Your task to perform on an android device: Clear the cart on amazon. Search for "apple airpods" on amazon, select the first entry, add it to the cart, then select checkout. Image 0: 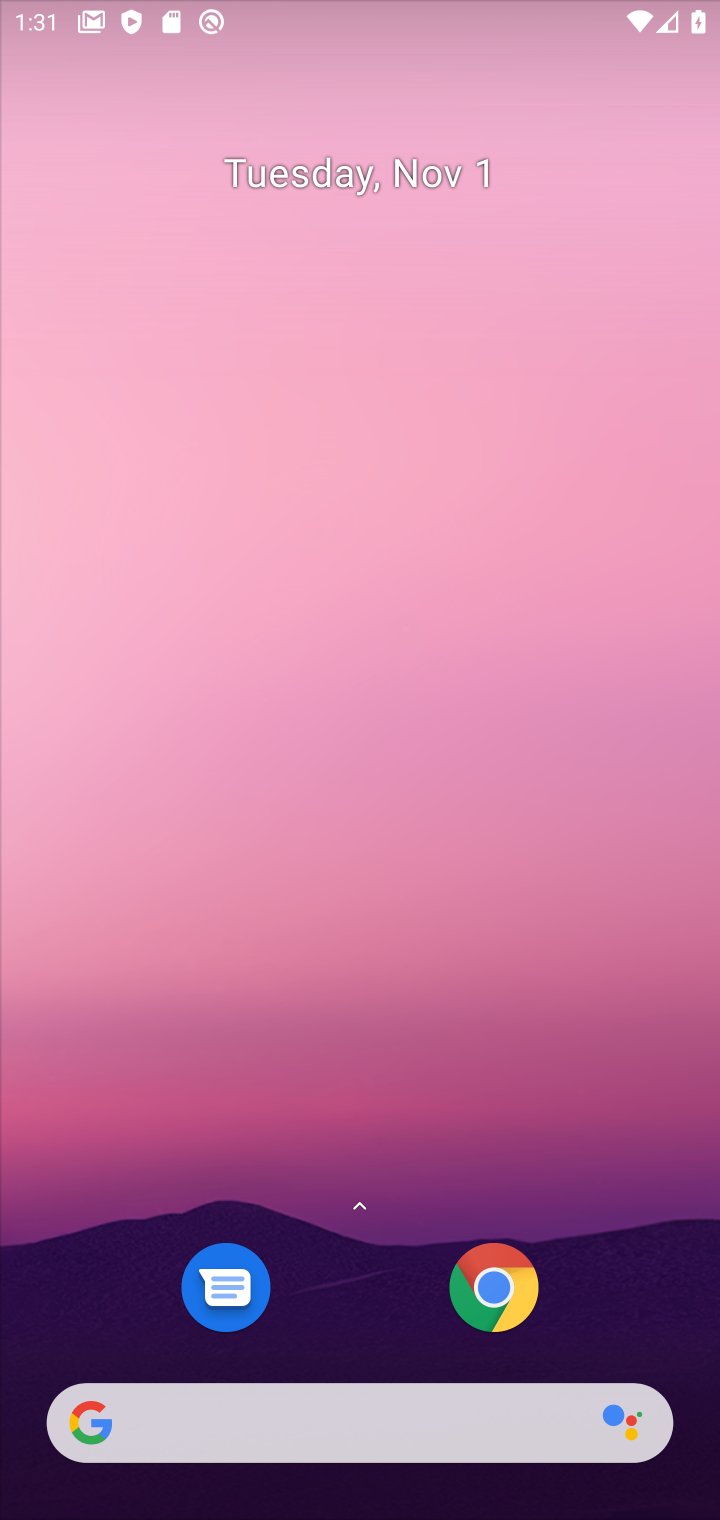
Step 0: press home button
Your task to perform on an android device: Clear the cart on amazon. Search for "apple airpods" on amazon, select the first entry, add it to the cart, then select checkout. Image 1: 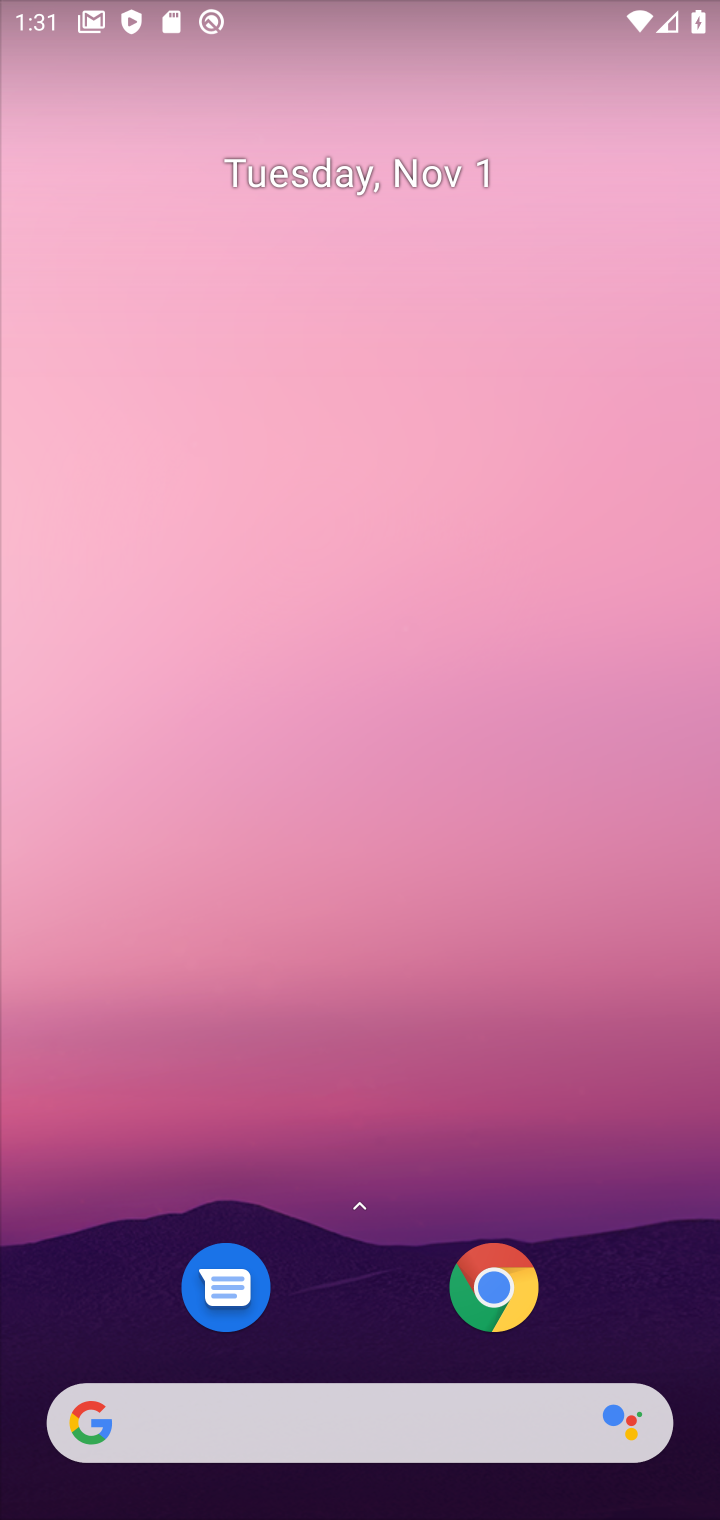
Step 1: drag from (337, 1319) to (401, 272)
Your task to perform on an android device: Clear the cart on amazon. Search for "apple airpods" on amazon, select the first entry, add it to the cart, then select checkout. Image 2: 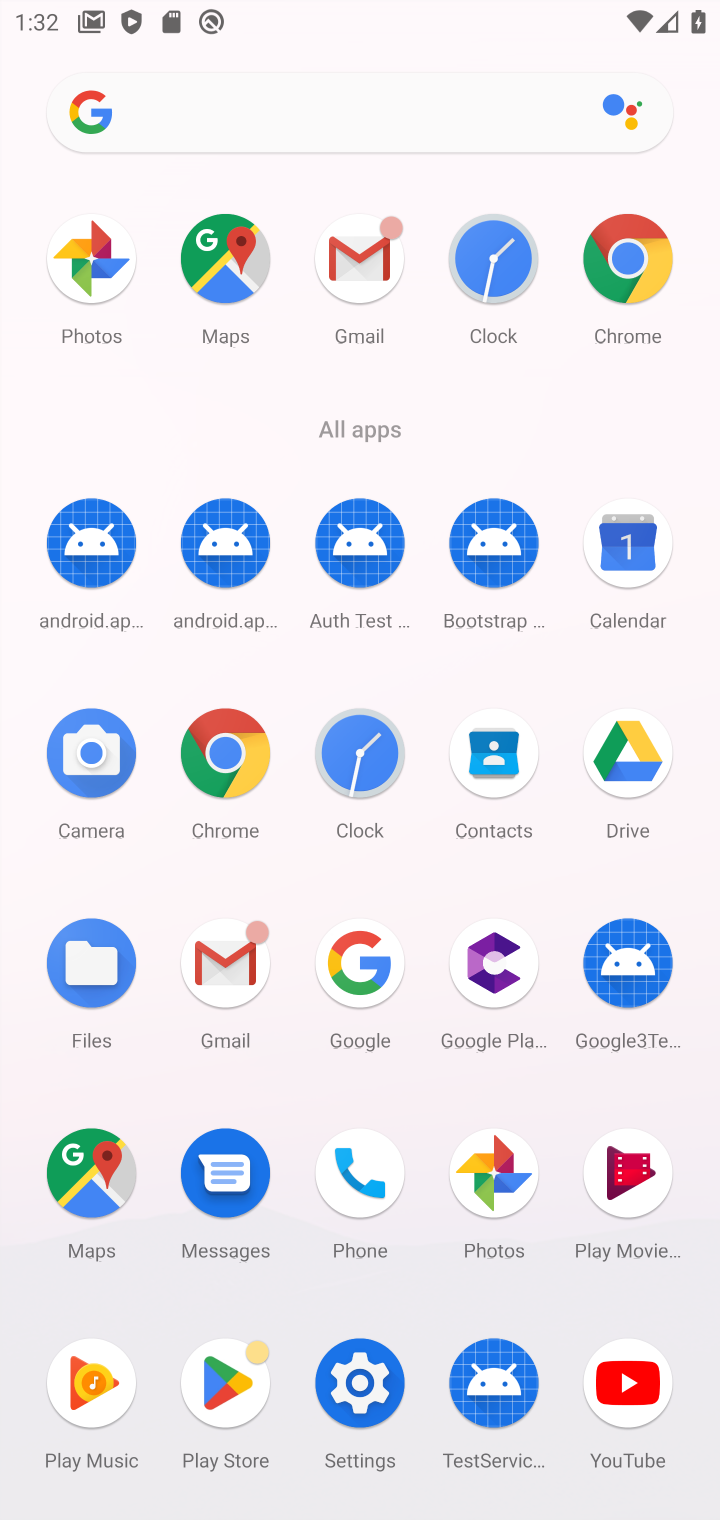
Step 2: click (229, 749)
Your task to perform on an android device: Clear the cart on amazon. Search for "apple airpods" on amazon, select the first entry, add it to the cart, then select checkout. Image 3: 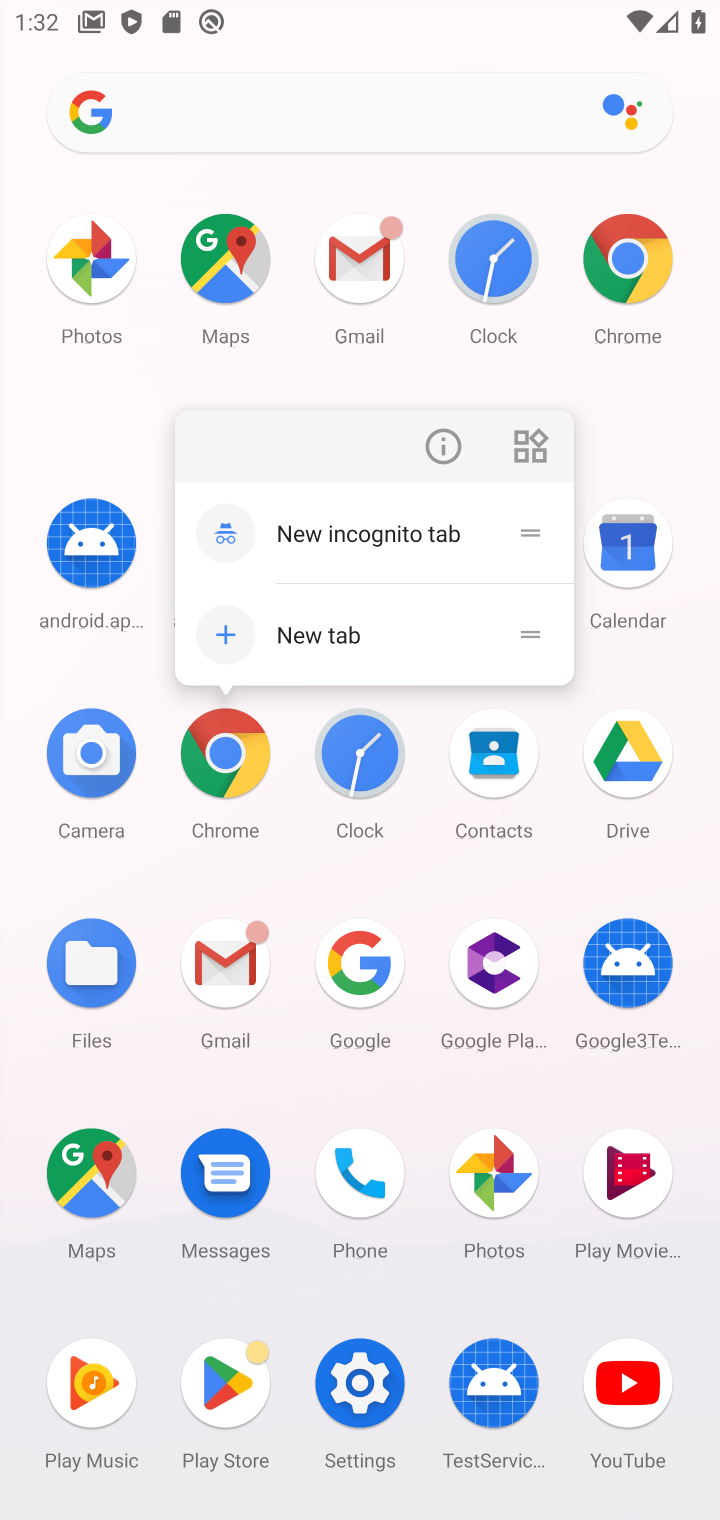
Step 3: click (229, 756)
Your task to perform on an android device: Clear the cart on amazon. Search for "apple airpods" on amazon, select the first entry, add it to the cart, then select checkout. Image 4: 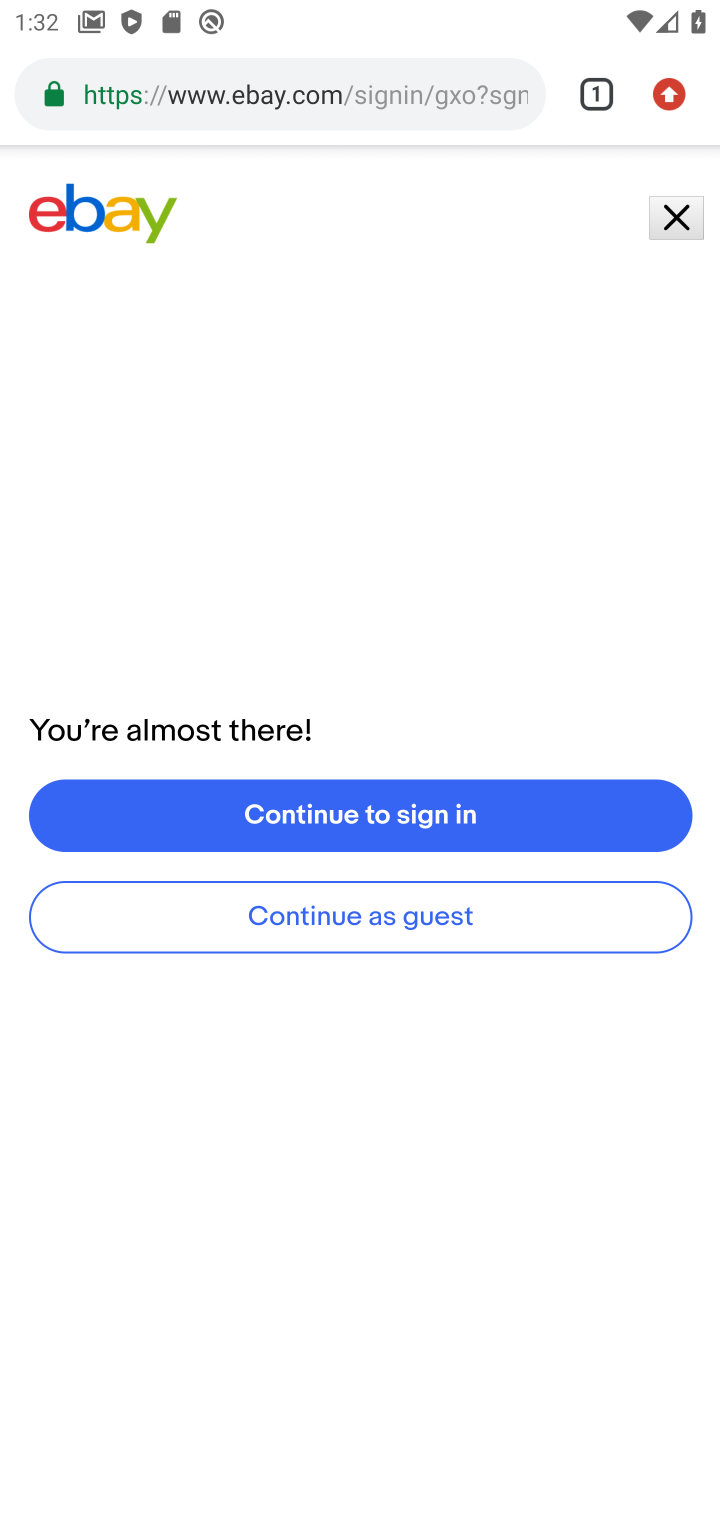
Step 4: click (362, 85)
Your task to perform on an android device: Clear the cart on amazon. Search for "apple airpods" on amazon, select the first entry, add it to the cart, then select checkout. Image 5: 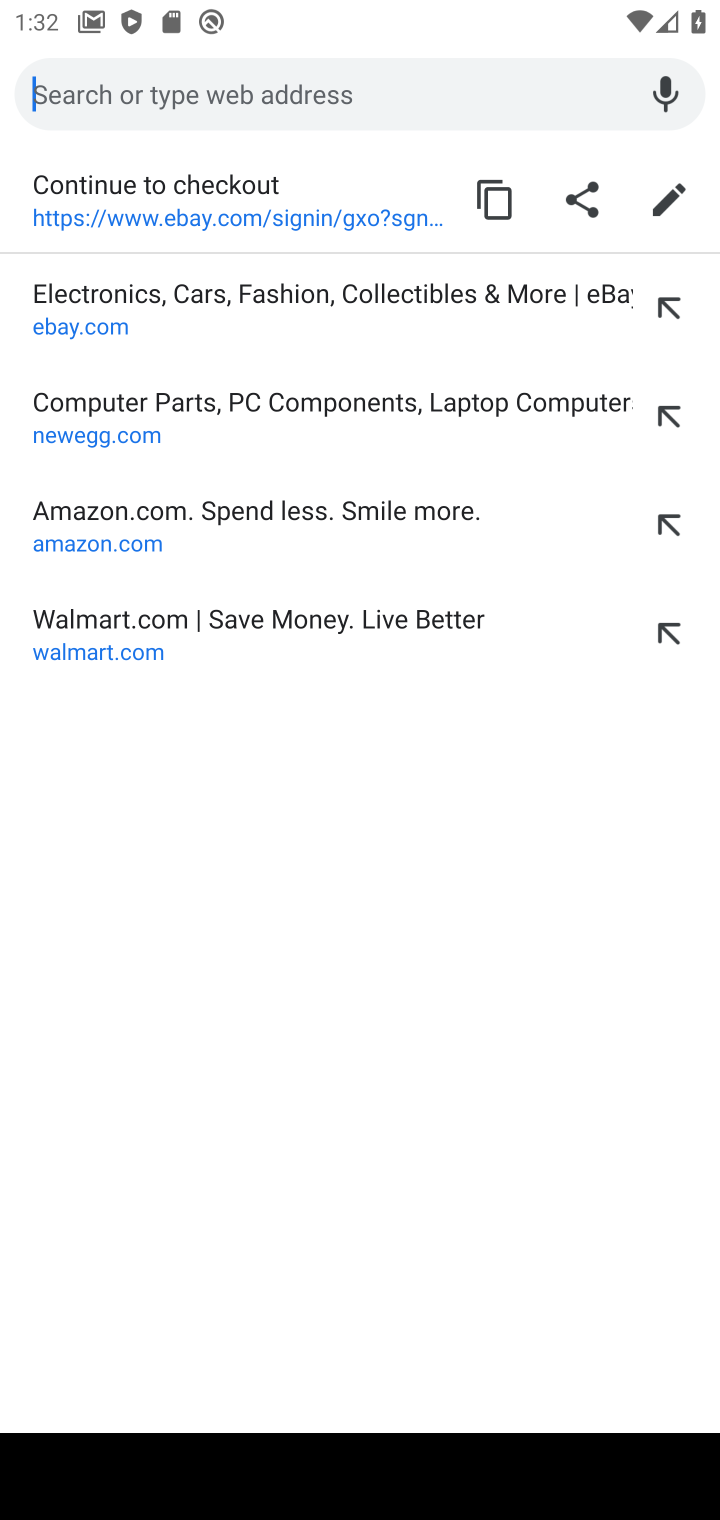
Step 5: type "amazon.com"
Your task to perform on an android device: Clear the cart on amazon. Search for "apple airpods" on amazon, select the first entry, add it to the cart, then select checkout. Image 6: 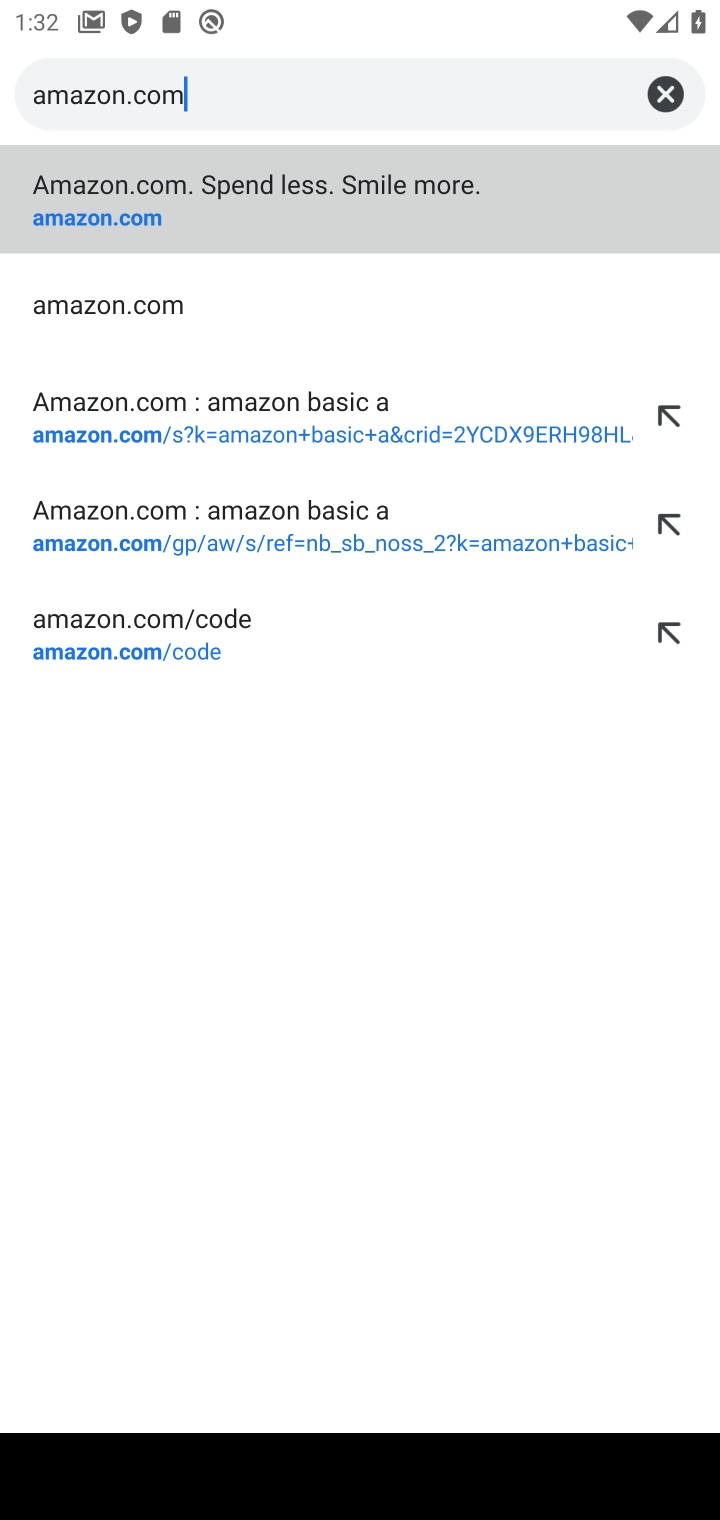
Step 6: press enter
Your task to perform on an android device: Clear the cart on amazon. Search for "apple airpods" on amazon, select the first entry, add it to the cart, then select checkout. Image 7: 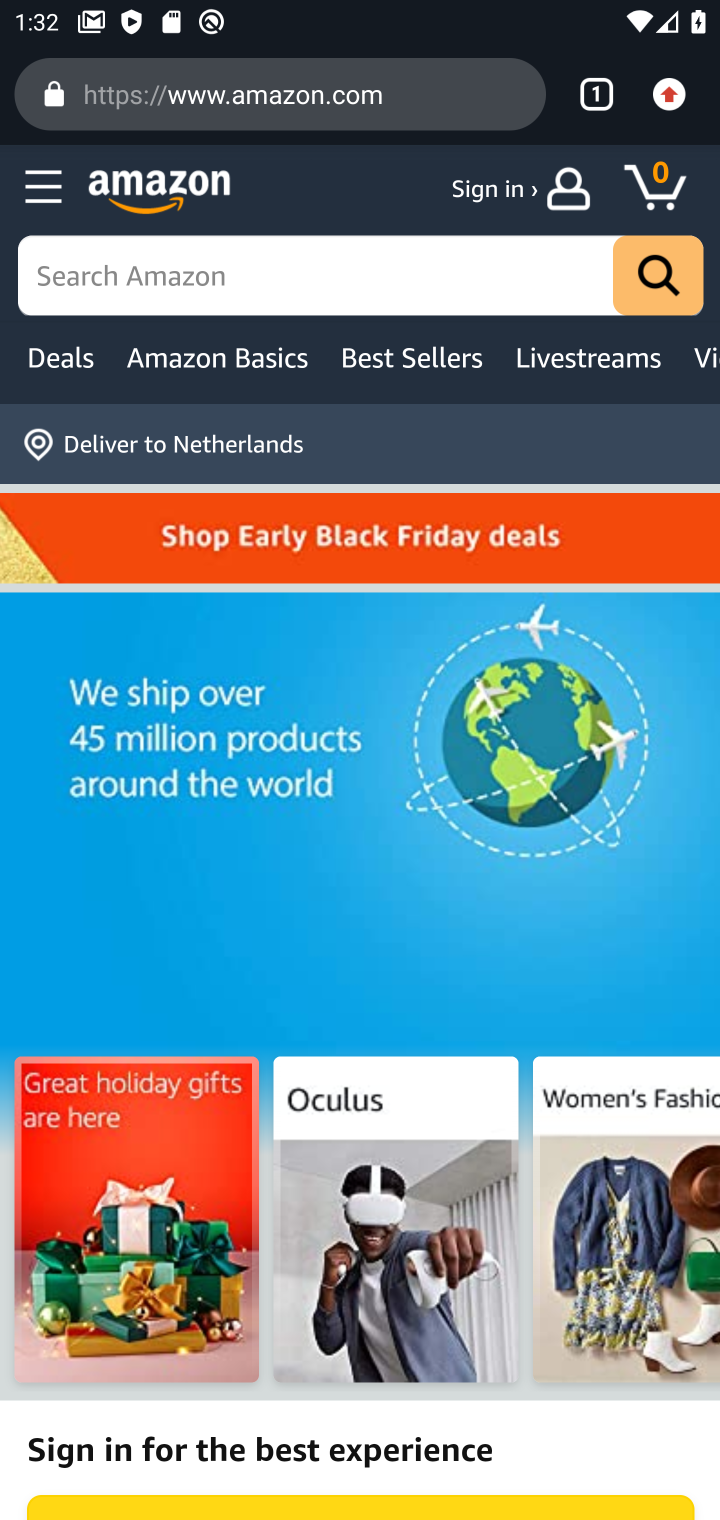
Step 7: click (650, 174)
Your task to perform on an android device: Clear the cart on amazon. Search for "apple airpods" on amazon, select the first entry, add it to the cart, then select checkout. Image 8: 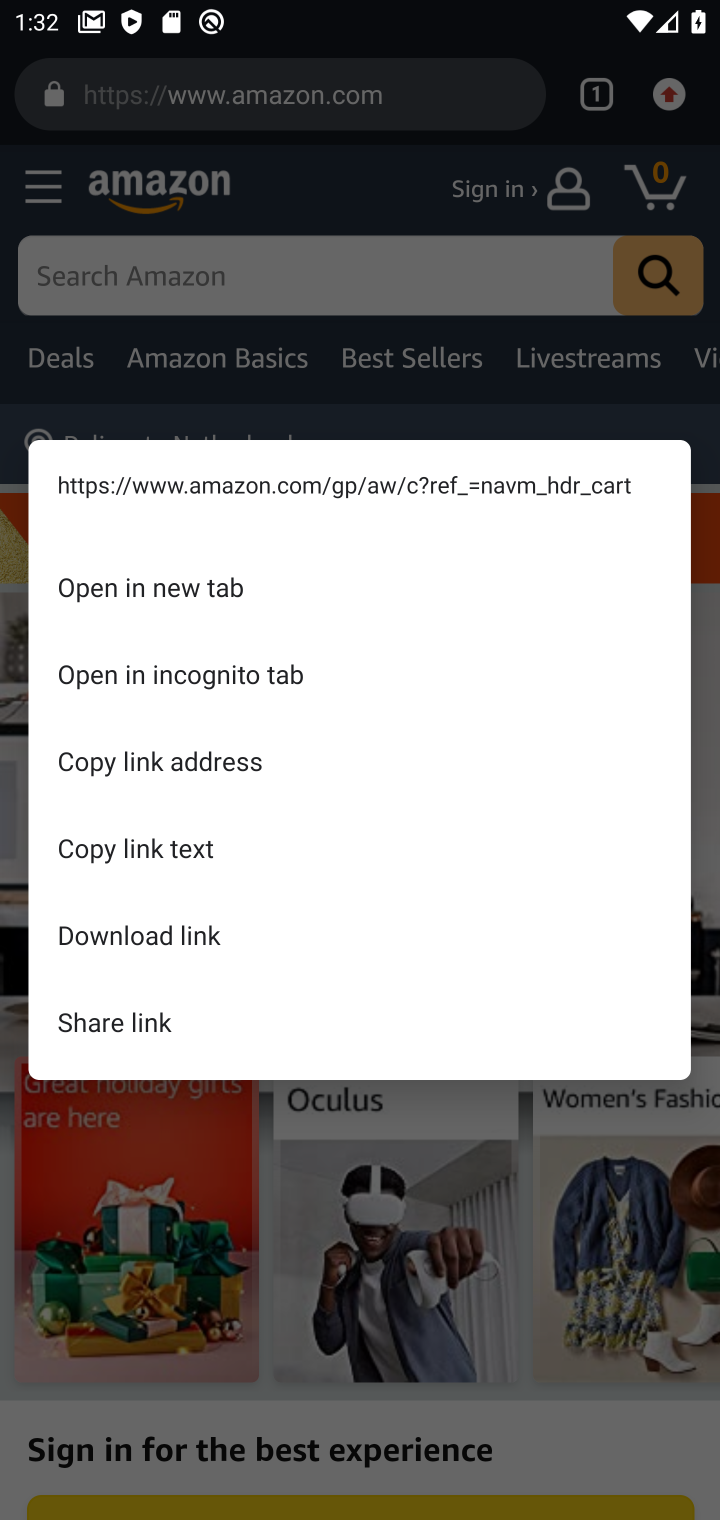
Step 8: click (683, 201)
Your task to perform on an android device: Clear the cart on amazon. Search for "apple airpods" on amazon, select the first entry, add it to the cart, then select checkout. Image 9: 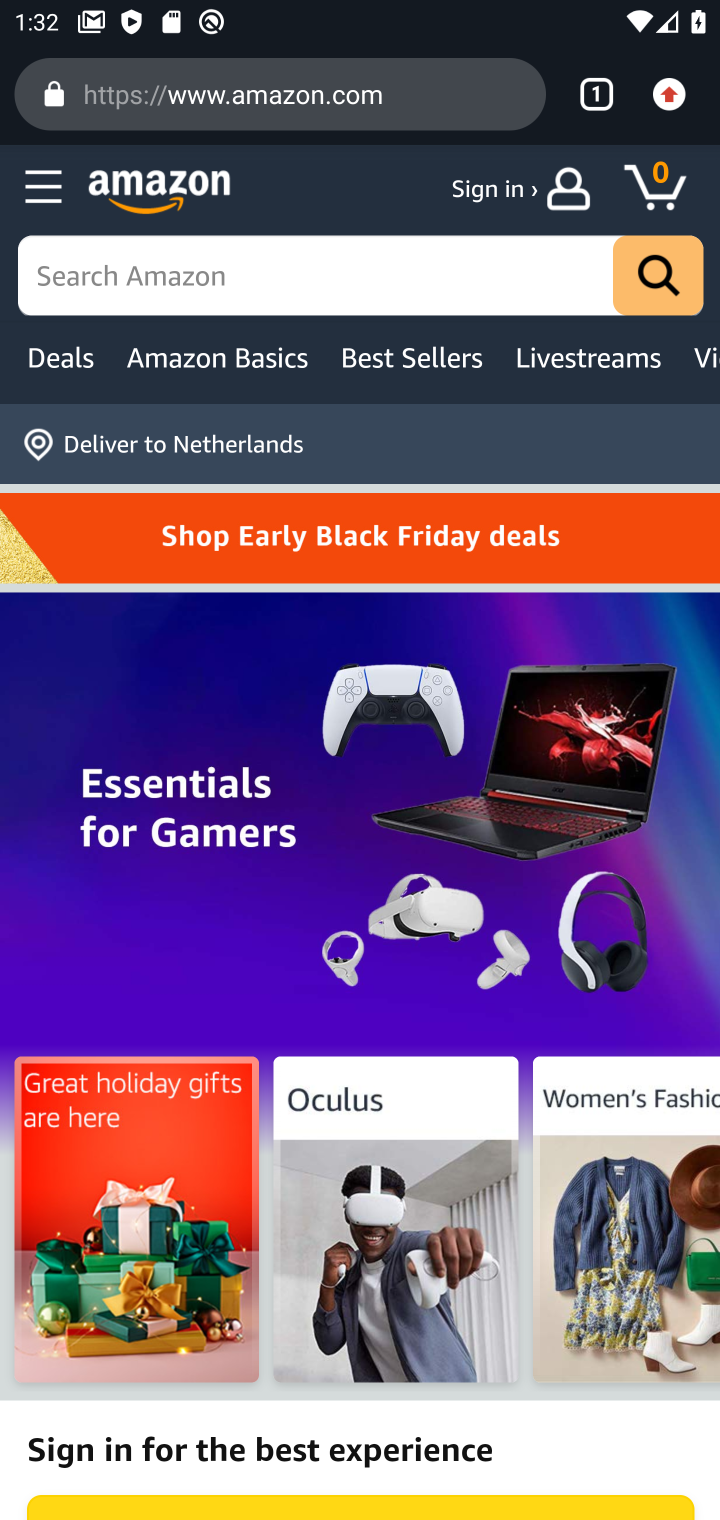
Step 9: click (683, 195)
Your task to perform on an android device: Clear the cart on amazon. Search for "apple airpods" on amazon, select the first entry, add it to the cart, then select checkout. Image 10: 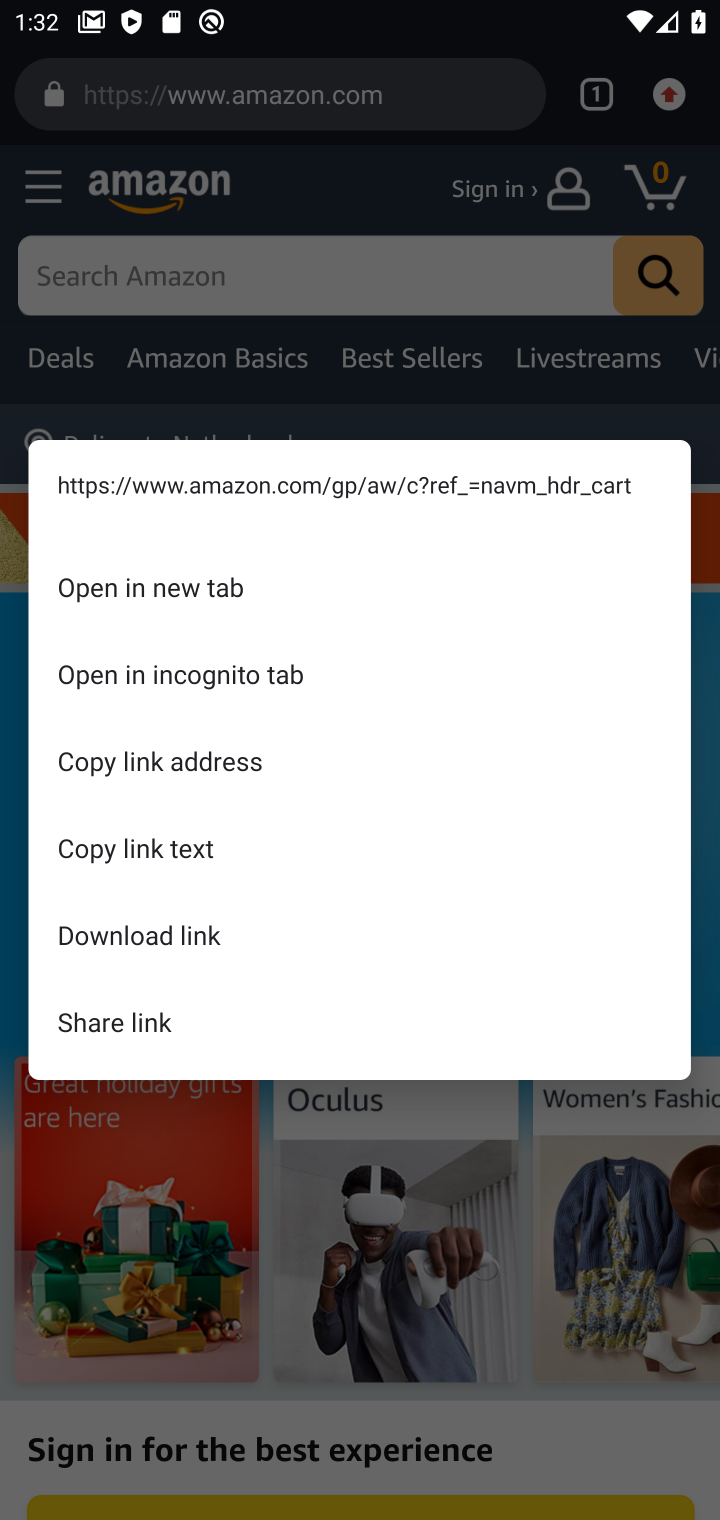
Step 10: click (640, 173)
Your task to perform on an android device: Clear the cart on amazon. Search for "apple airpods" on amazon, select the first entry, add it to the cart, then select checkout. Image 11: 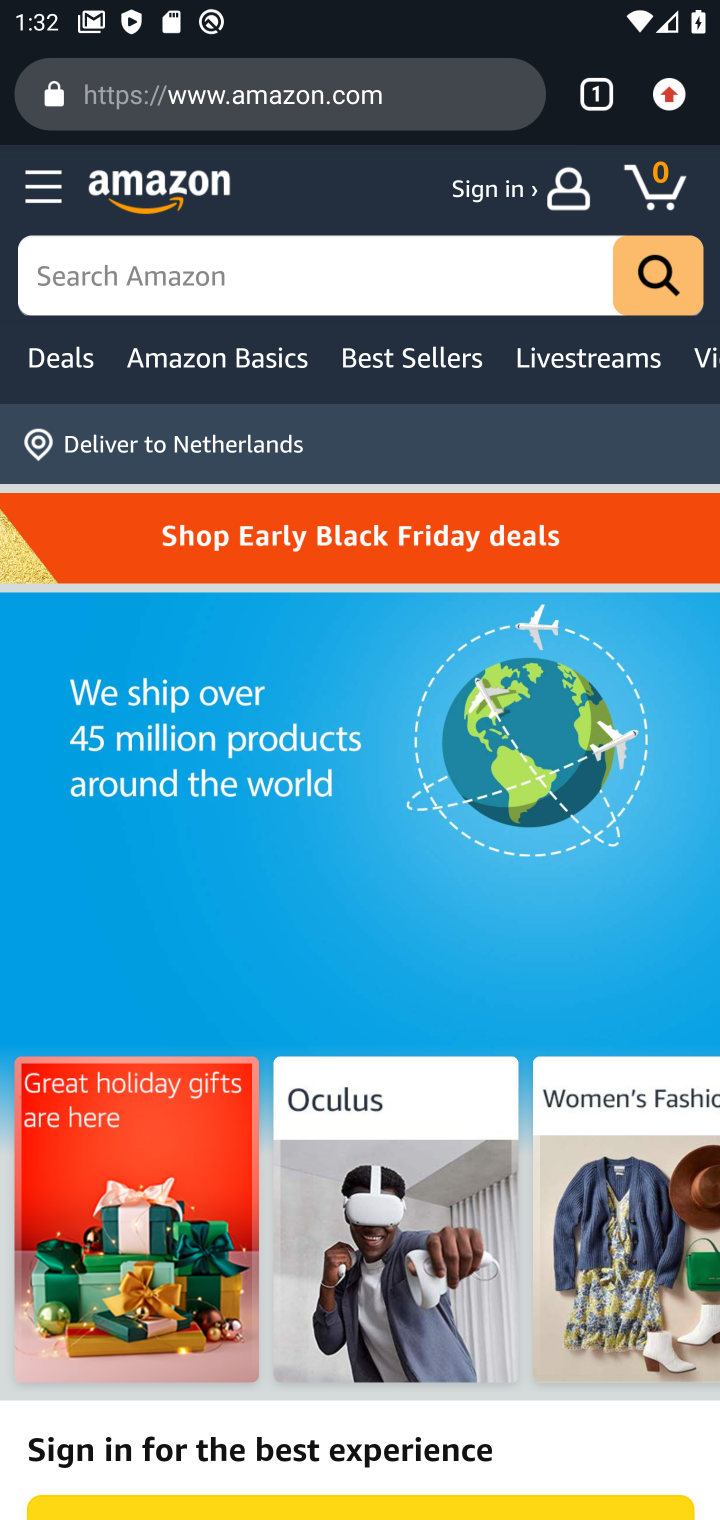
Step 11: click (640, 189)
Your task to perform on an android device: Clear the cart on amazon. Search for "apple airpods" on amazon, select the first entry, add it to the cart, then select checkout. Image 12: 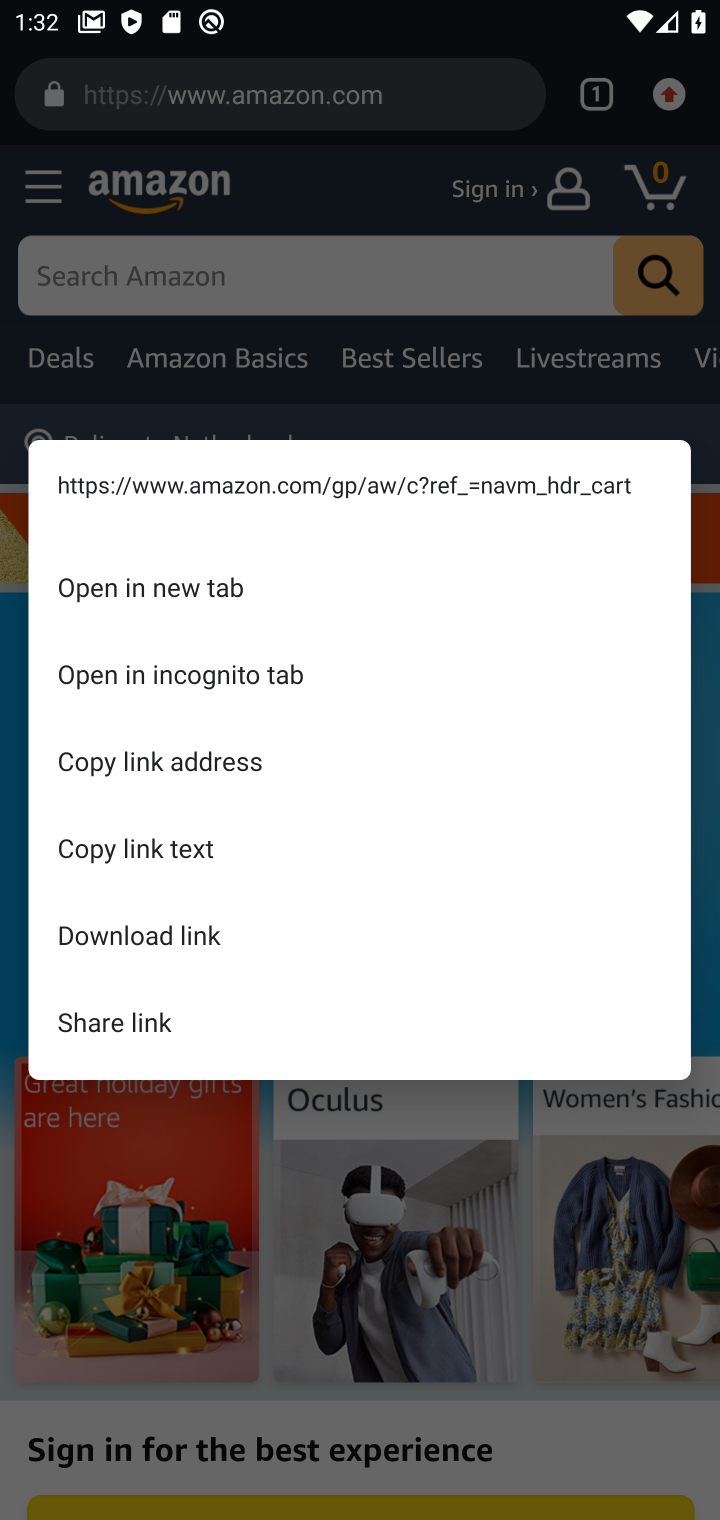
Step 12: click (663, 189)
Your task to perform on an android device: Clear the cart on amazon. Search for "apple airpods" on amazon, select the first entry, add it to the cart, then select checkout. Image 13: 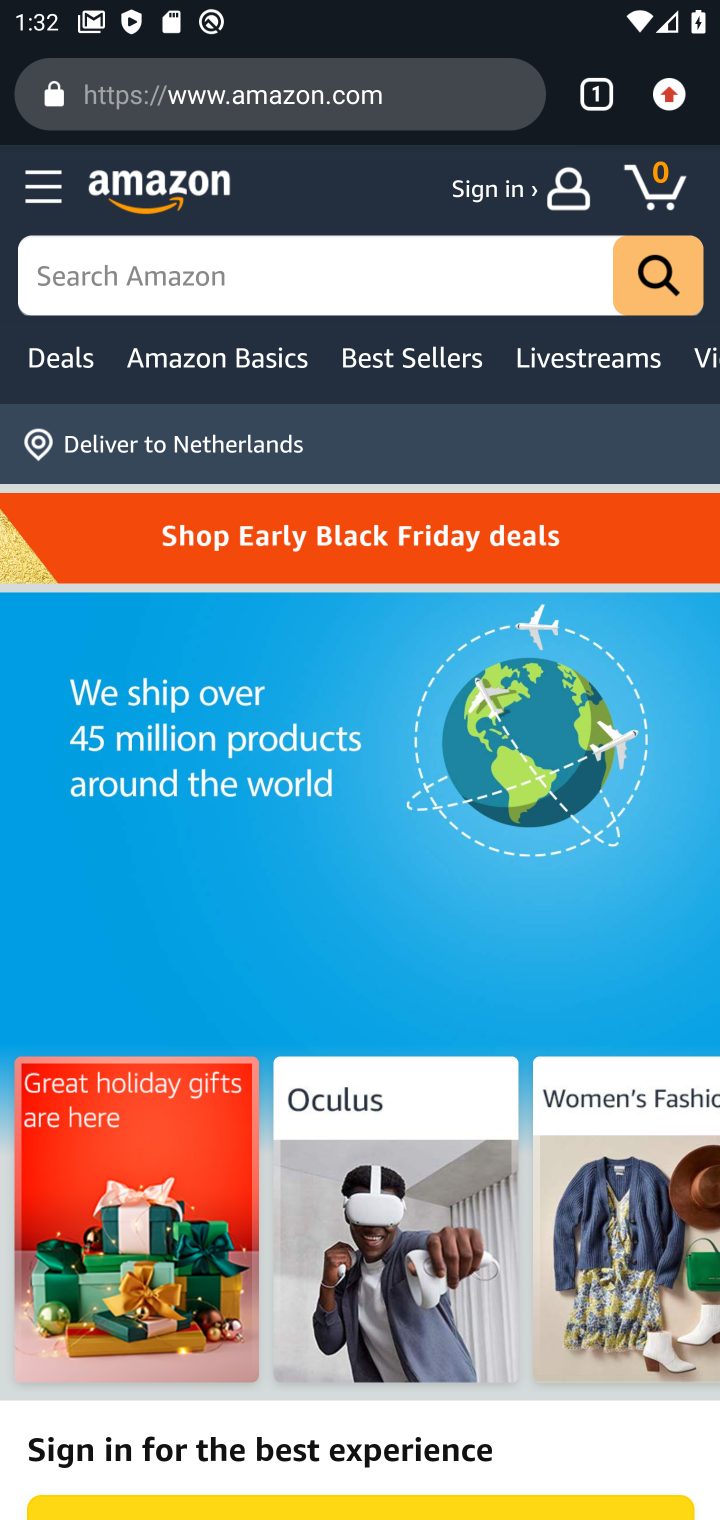
Step 13: click (663, 189)
Your task to perform on an android device: Clear the cart on amazon. Search for "apple airpods" on amazon, select the first entry, add it to the cart, then select checkout. Image 14: 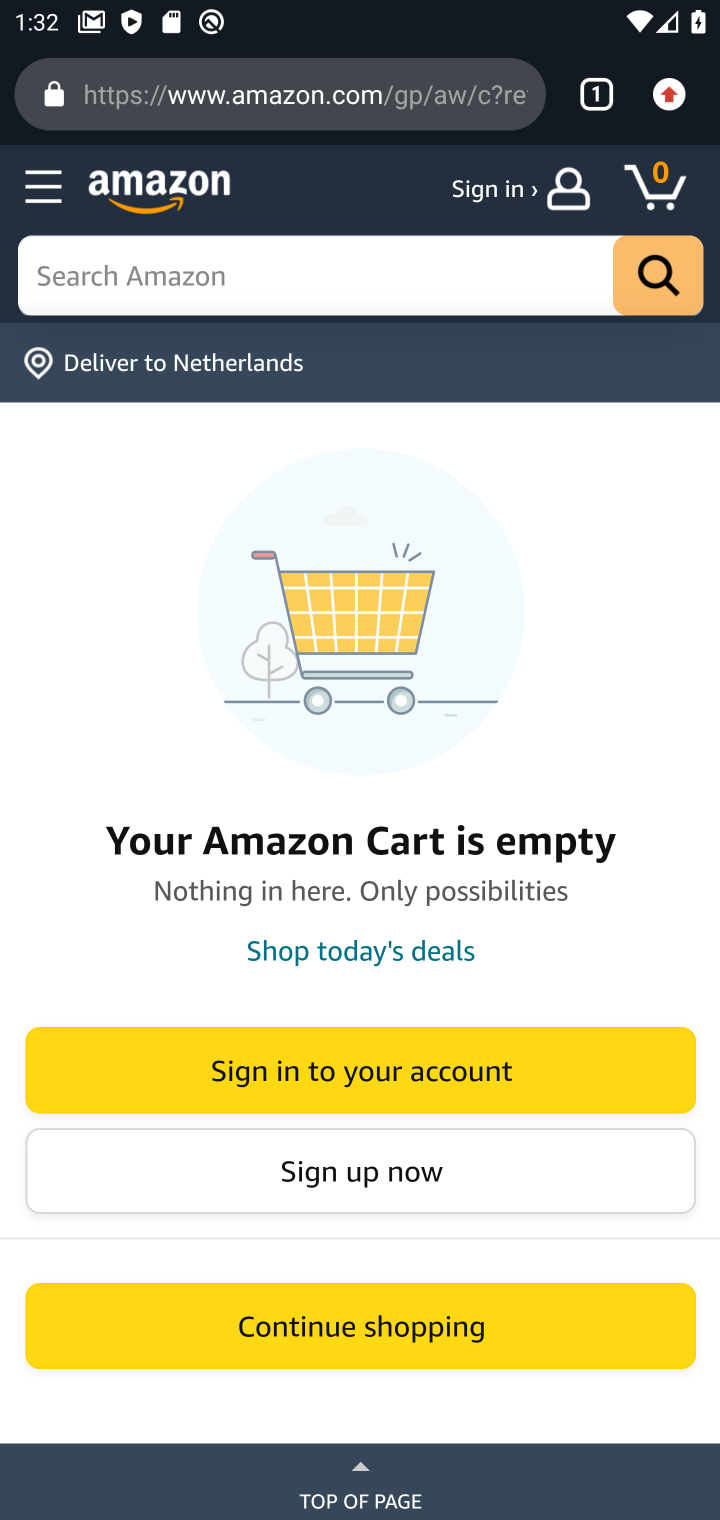
Step 14: click (258, 269)
Your task to perform on an android device: Clear the cart on amazon. Search for "apple airpods" on amazon, select the first entry, add it to the cart, then select checkout. Image 15: 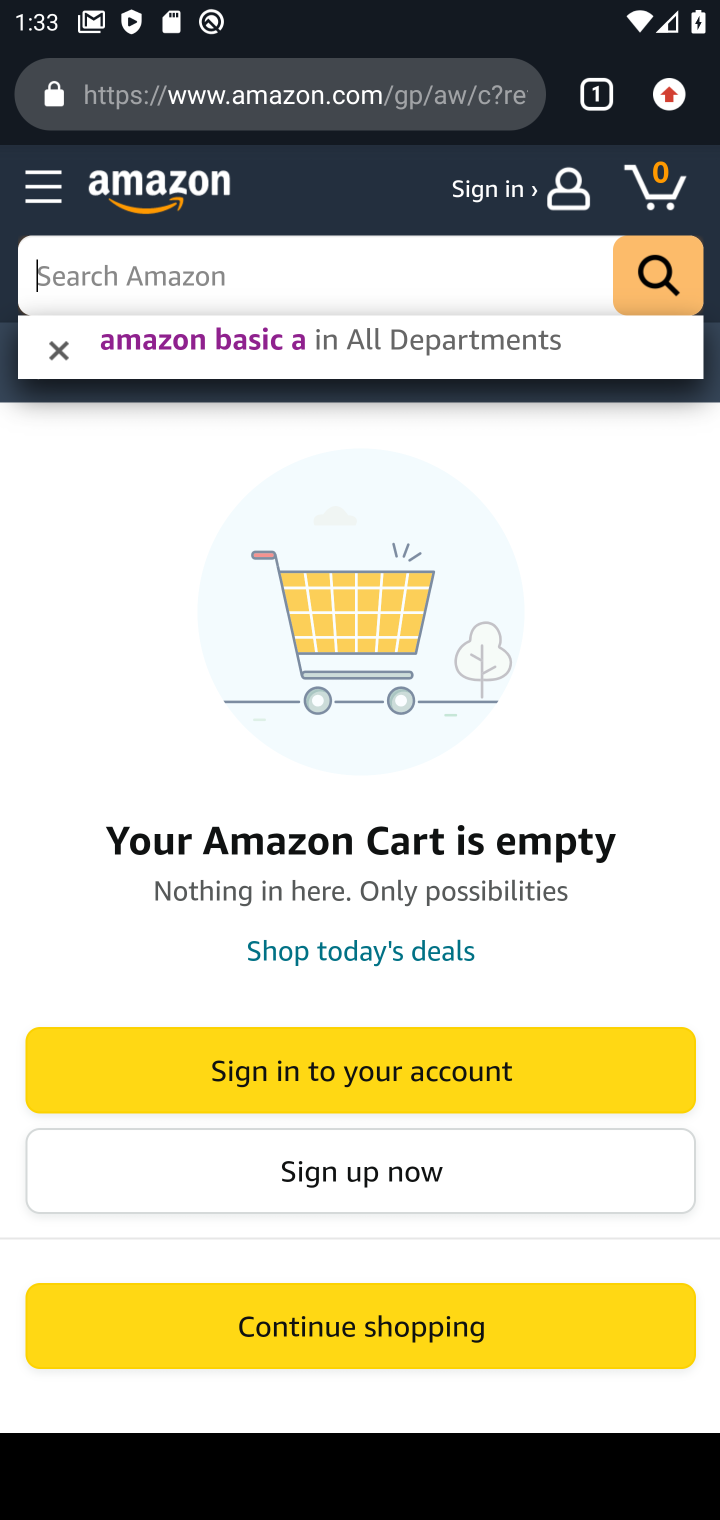
Step 15: type "apple airpods"
Your task to perform on an android device: Clear the cart on amazon. Search for "apple airpods" on amazon, select the first entry, add it to the cart, then select checkout. Image 16: 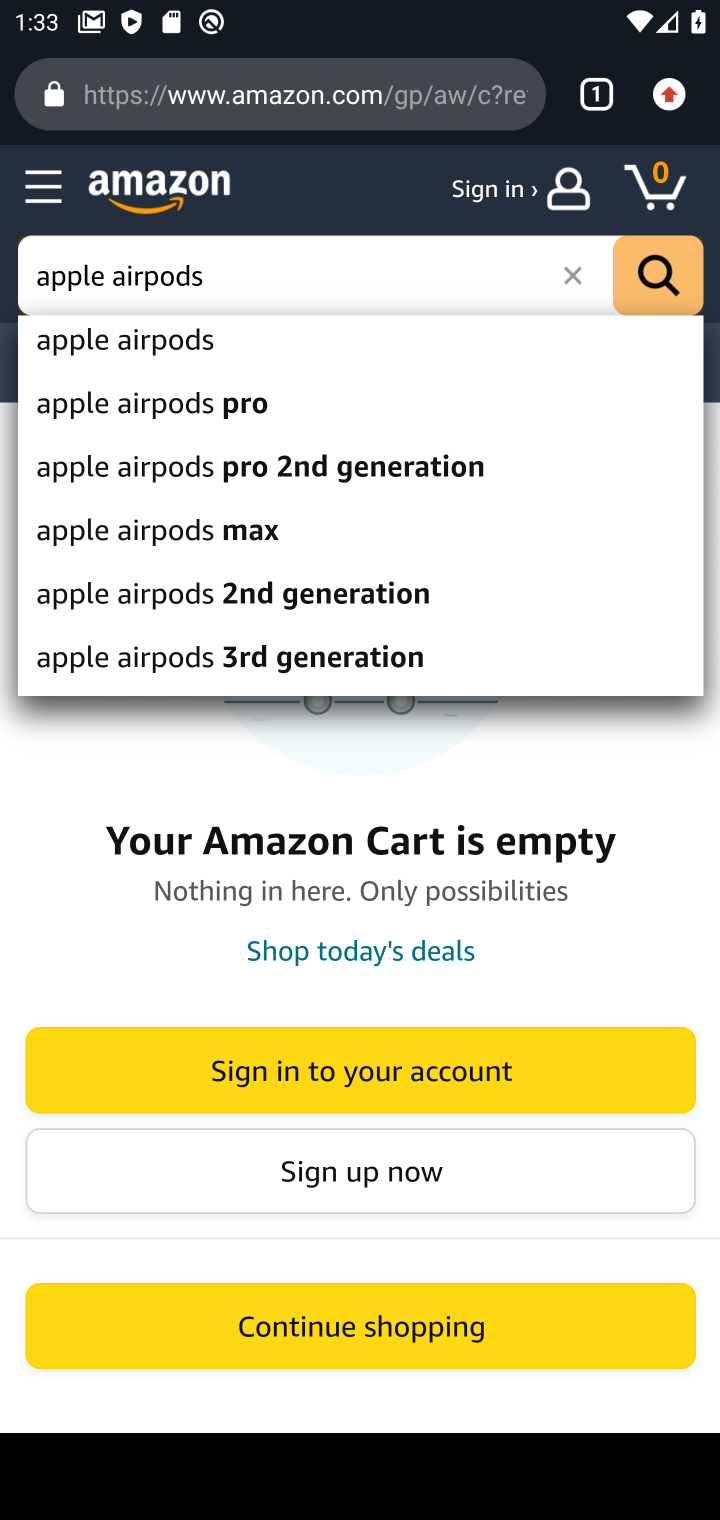
Step 16: press enter
Your task to perform on an android device: Clear the cart on amazon. Search for "apple airpods" on amazon, select the first entry, add it to the cart, then select checkout. Image 17: 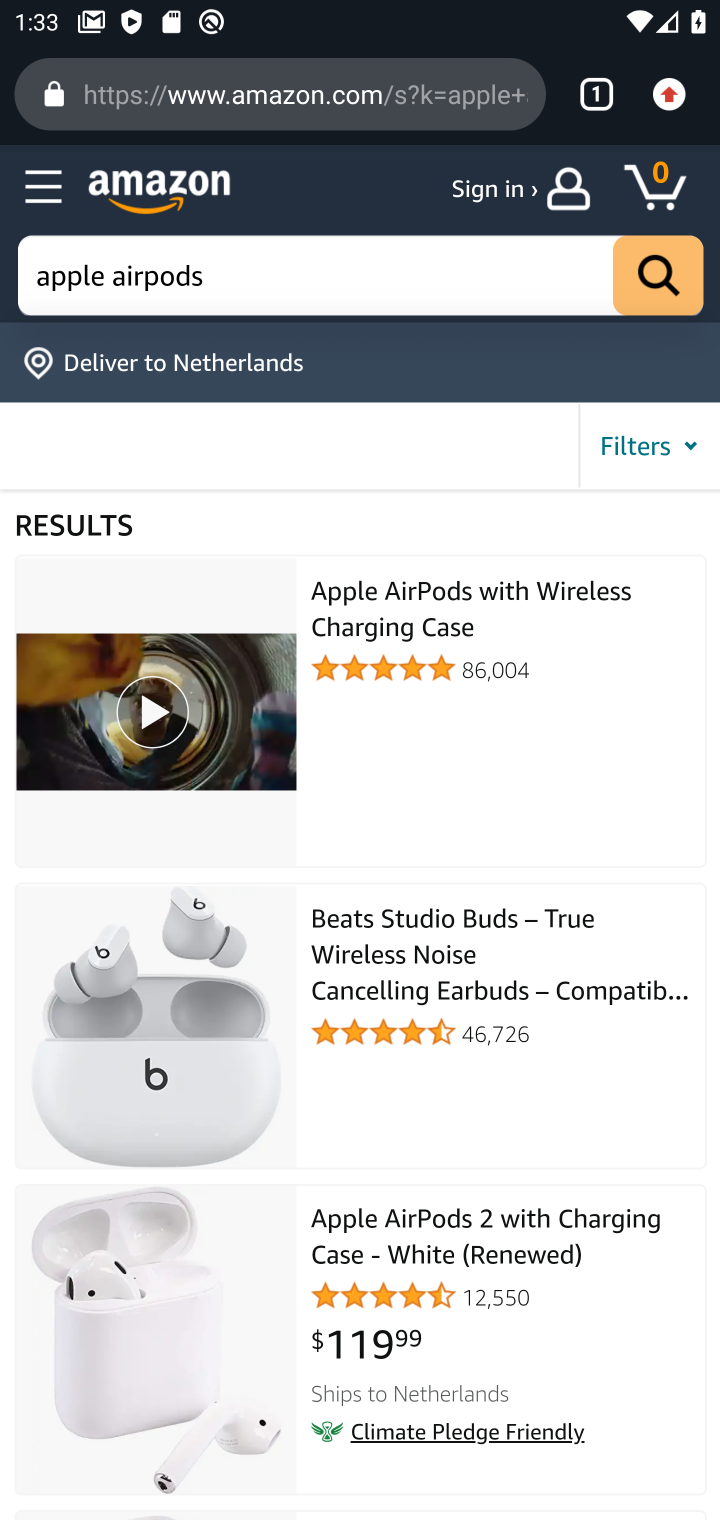
Step 17: drag from (243, 1068) to (353, 579)
Your task to perform on an android device: Clear the cart on amazon. Search for "apple airpods" on amazon, select the first entry, add it to the cart, then select checkout. Image 18: 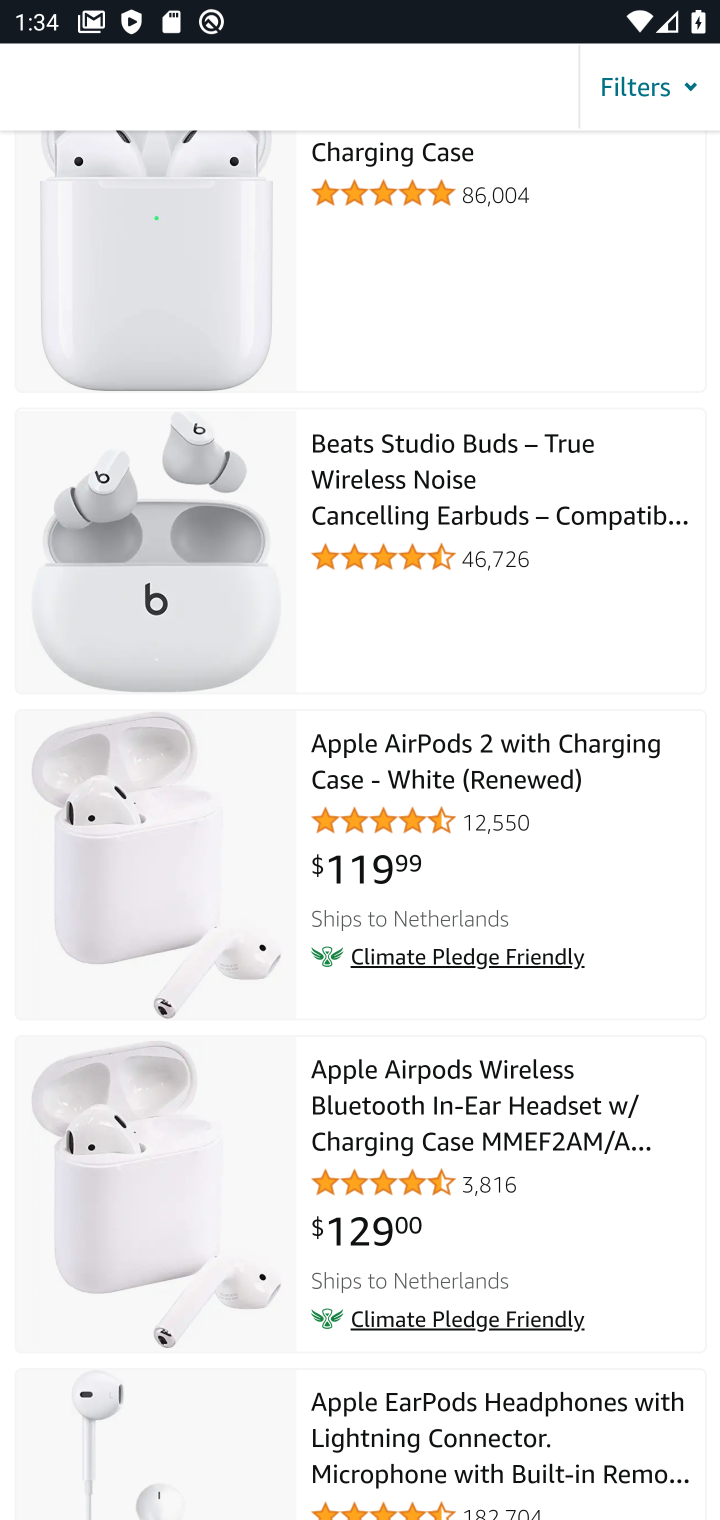
Step 18: drag from (361, 1156) to (466, 558)
Your task to perform on an android device: Clear the cart on amazon. Search for "apple airpods" on amazon, select the first entry, add it to the cart, then select checkout. Image 19: 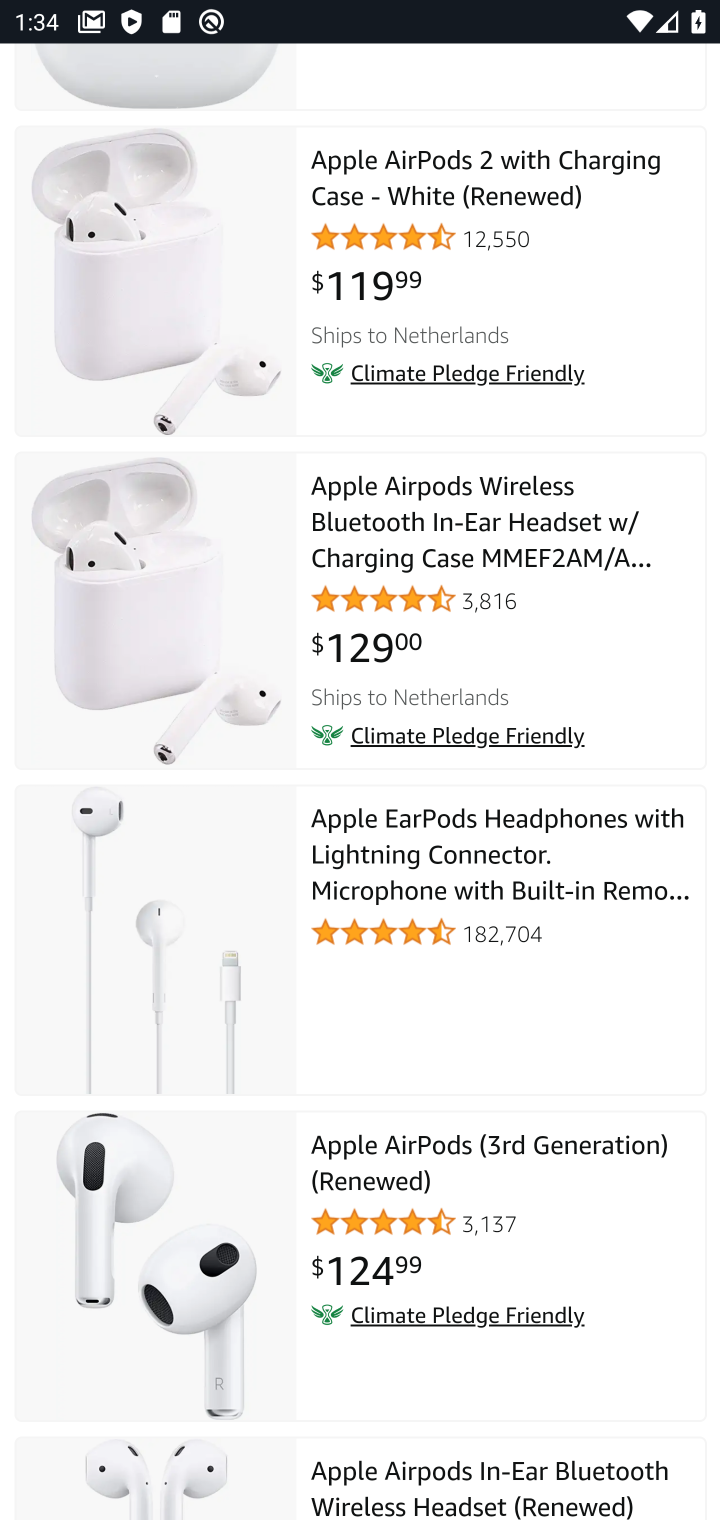
Step 19: drag from (423, 432) to (443, 993)
Your task to perform on an android device: Clear the cart on amazon. Search for "apple airpods" on amazon, select the first entry, add it to the cart, then select checkout. Image 20: 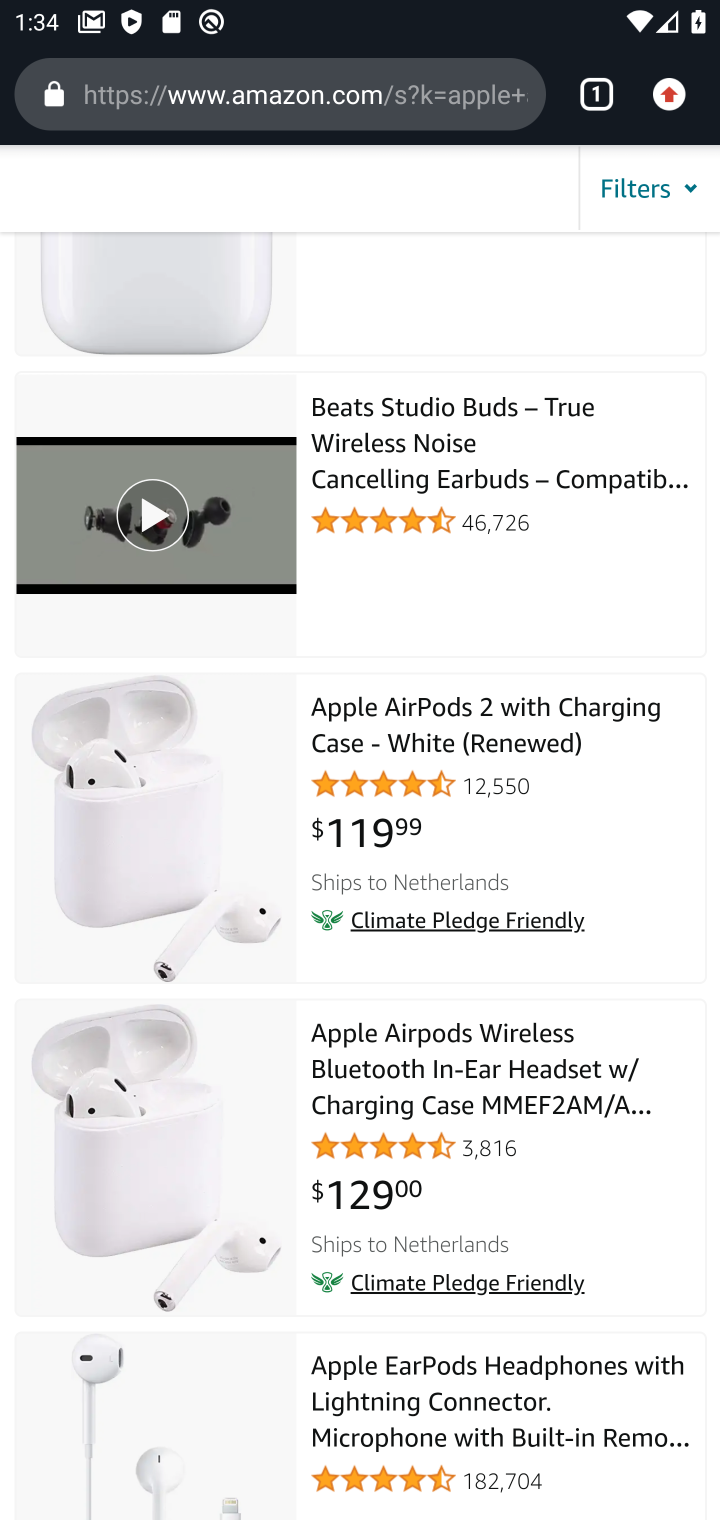
Step 20: drag from (462, 692) to (465, 1055)
Your task to perform on an android device: Clear the cart on amazon. Search for "apple airpods" on amazon, select the first entry, add it to the cart, then select checkout. Image 21: 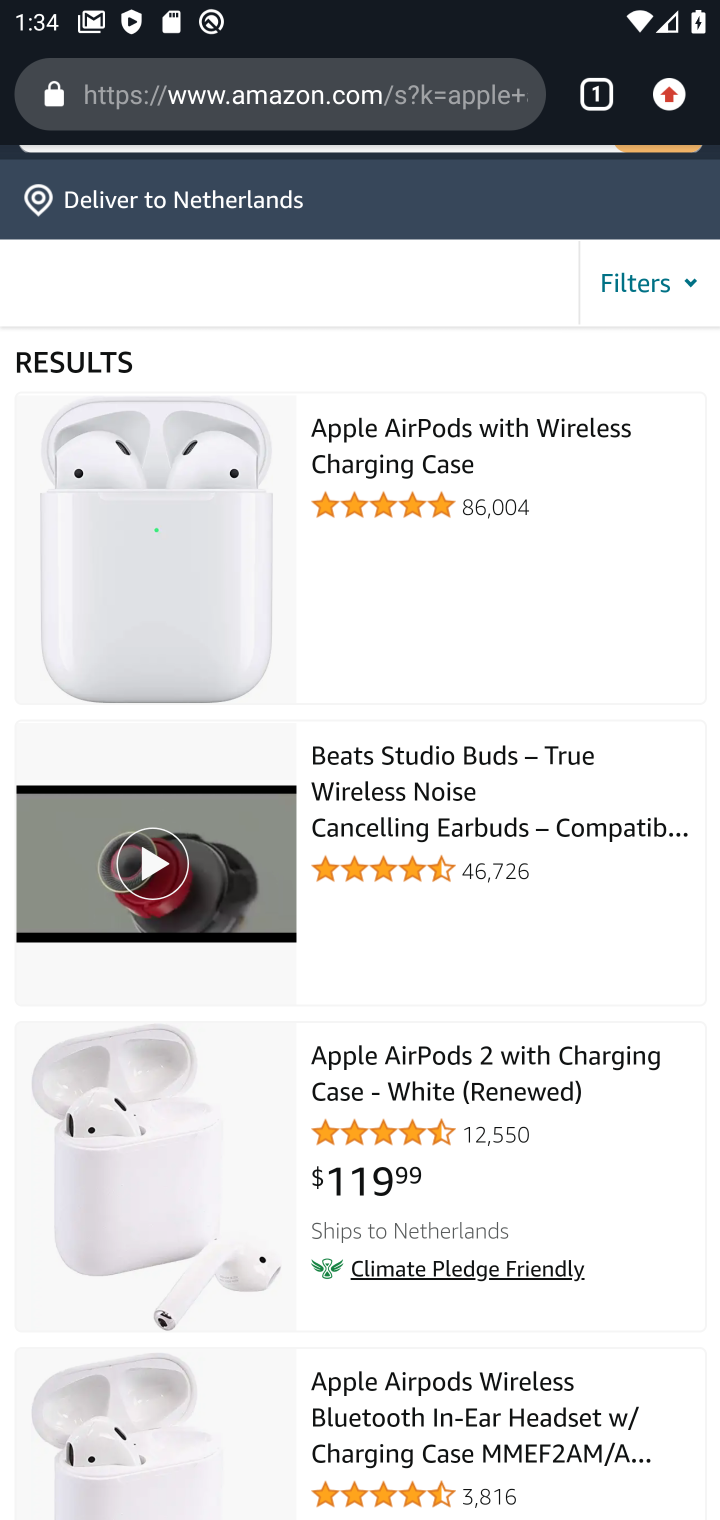
Step 21: click (217, 509)
Your task to perform on an android device: Clear the cart on amazon. Search for "apple airpods" on amazon, select the first entry, add it to the cart, then select checkout. Image 22: 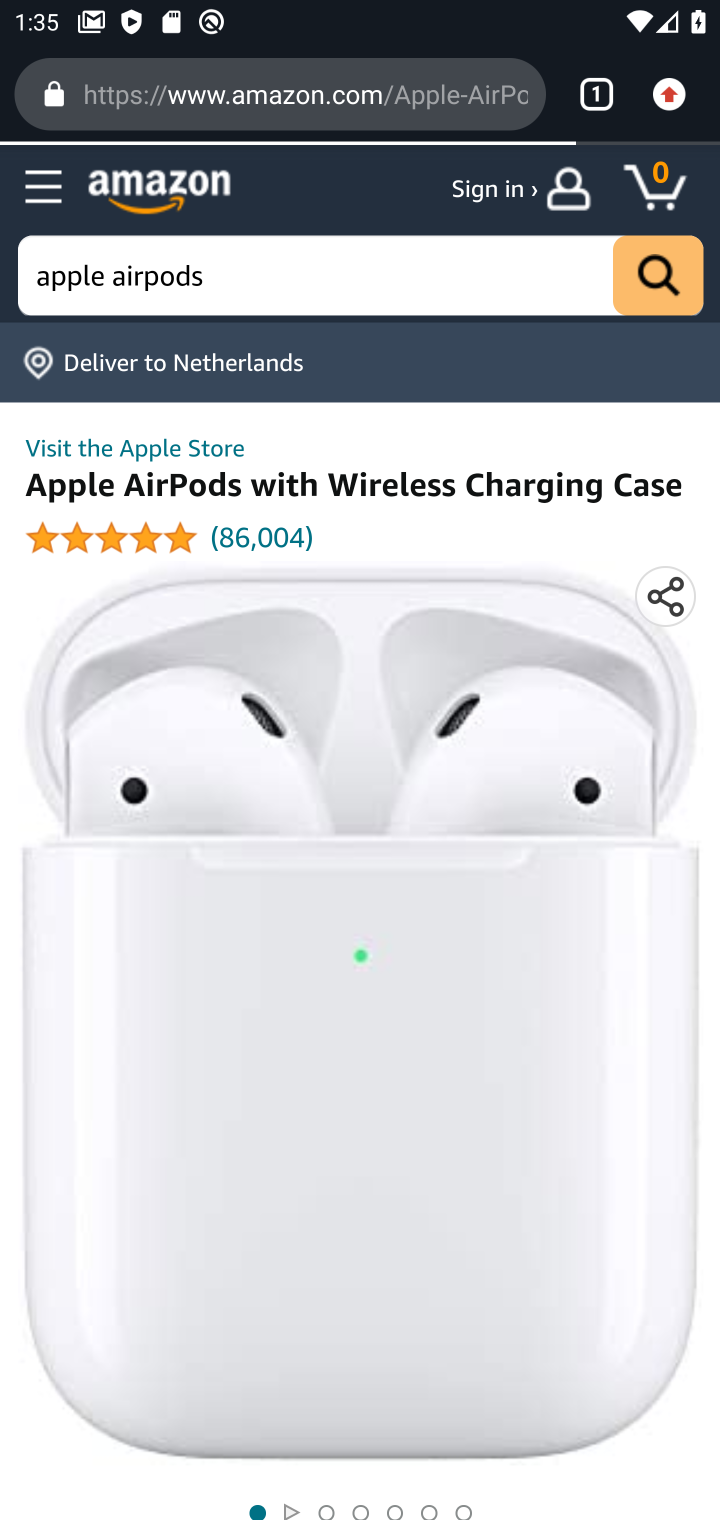
Step 22: task complete